Your task to perform on an android device: install app "Google Maps" Image 0: 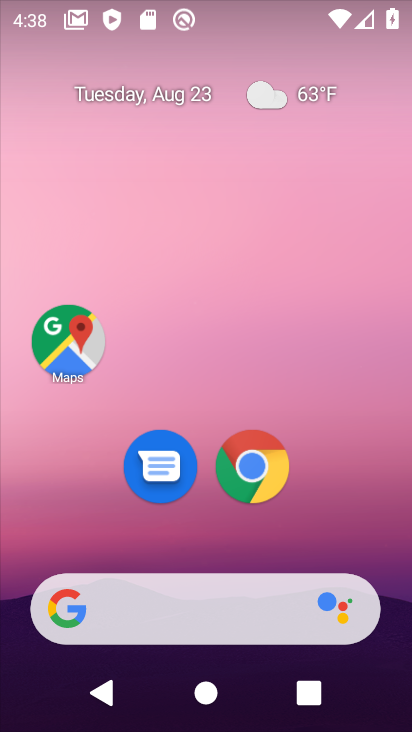
Step 0: drag from (196, 574) to (272, 7)
Your task to perform on an android device: install app "Google Maps" Image 1: 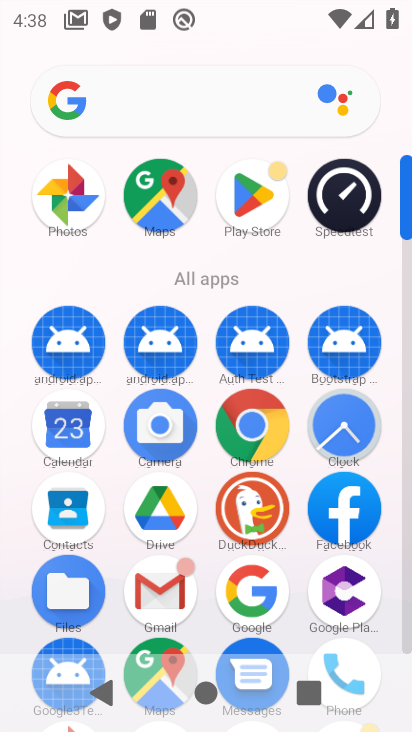
Step 1: click (258, 201)
Your task to perform on an android device: install app "Google Maps" Image 2: 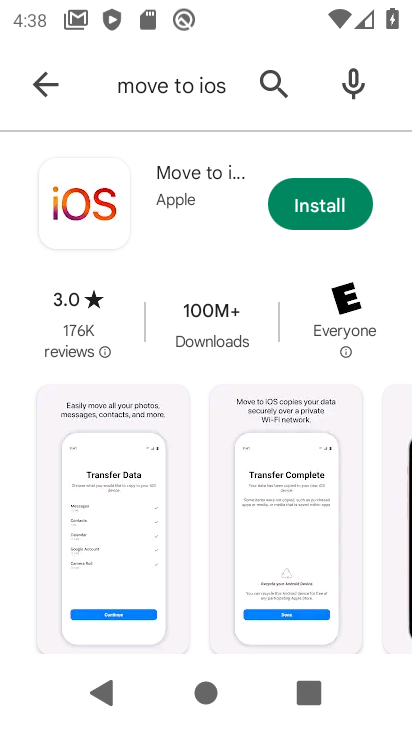
Step 2: click (209, 107)
Your task to perform on an android device: install app "Google Maps" Image 3: 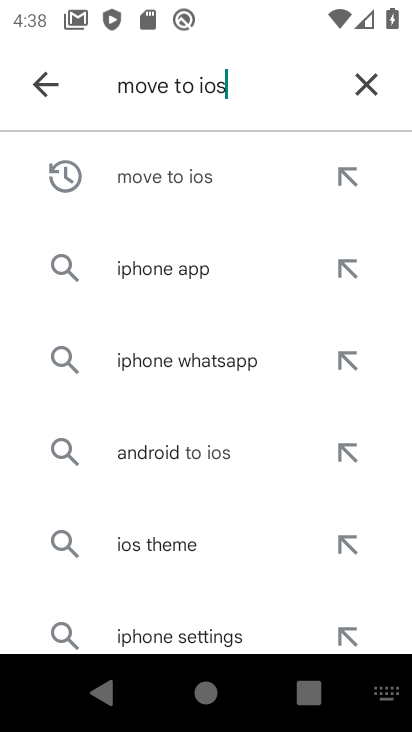
Step 3: click (369, 76)
Your task to perform on an android device: install app "Google Maps" Image 4: 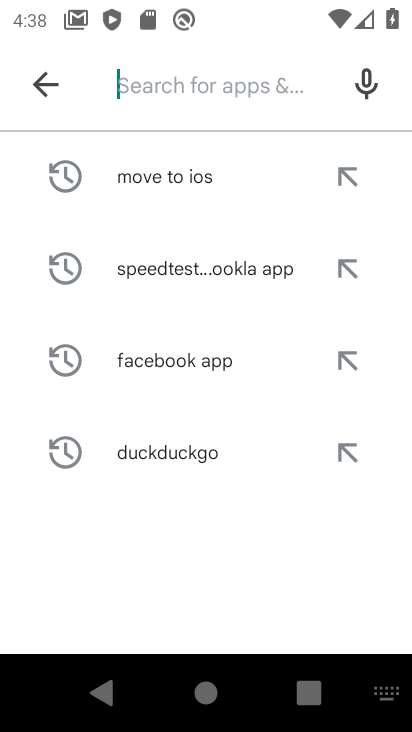
Step 4: type "google maps"
Your task to perform on an android device: install app "Google Maps" Image 5: 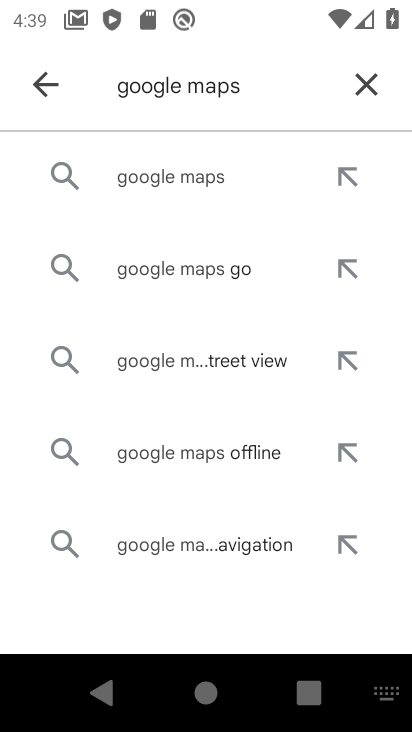
Step 5: click (157, 186)
Your task to perform on an android device: install app "Google Maps" Image 6: 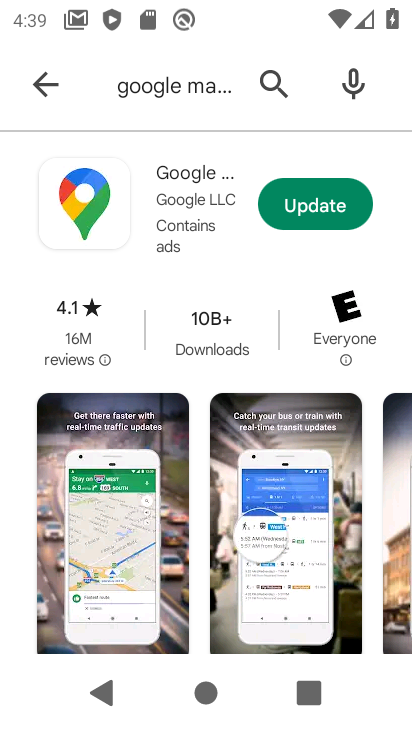
Step 6: click (336, 204)
Your task to perform on an android device: install app "Google Maps" Image 7: 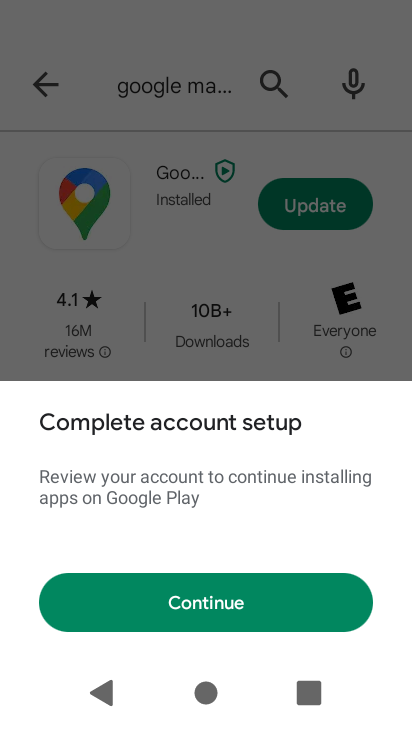
Step 7: click (145, 600)
Your task to perform on an android device: install app "Google Maps" Image 8: 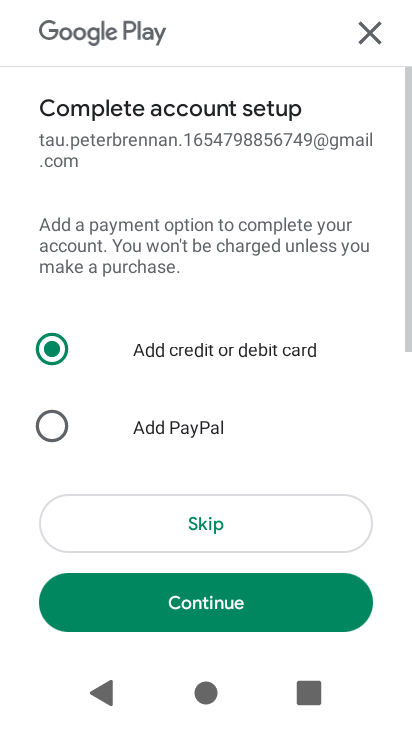
Step 8: click (147, 519)
Your task to perform on an android device: install app "Google Maps" Image 9: 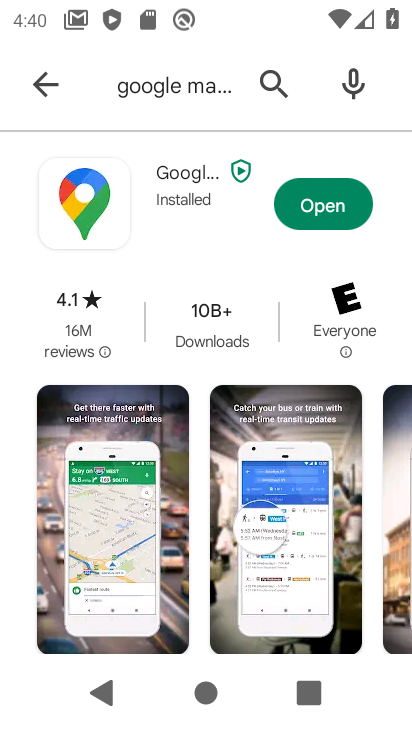
Step 9: task complete